Your task to perform on an android device: Open Google Maps Image 0: 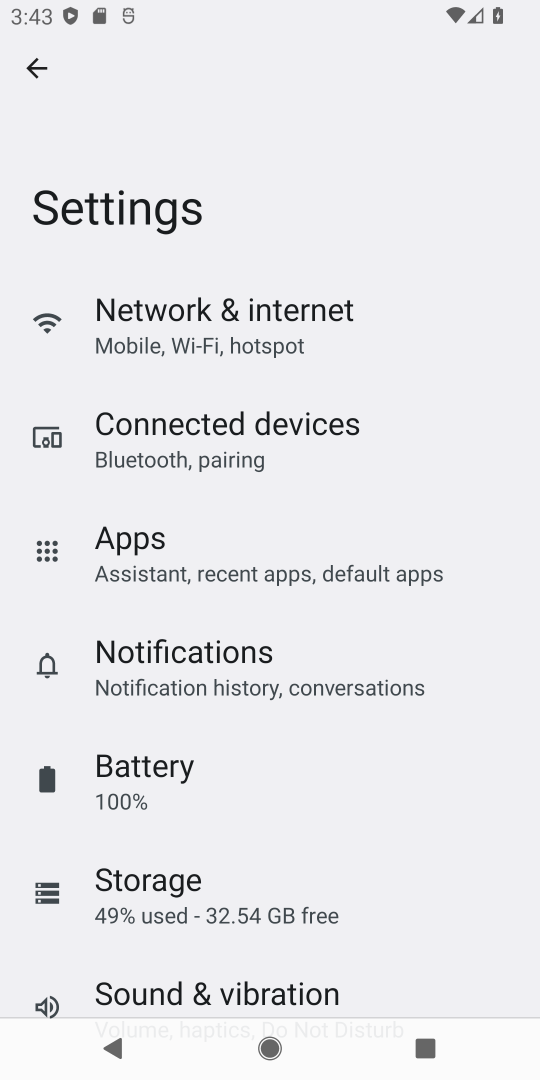
Step 0: press home button
Your task to perform on an android device: Open Google Maps Image 1: 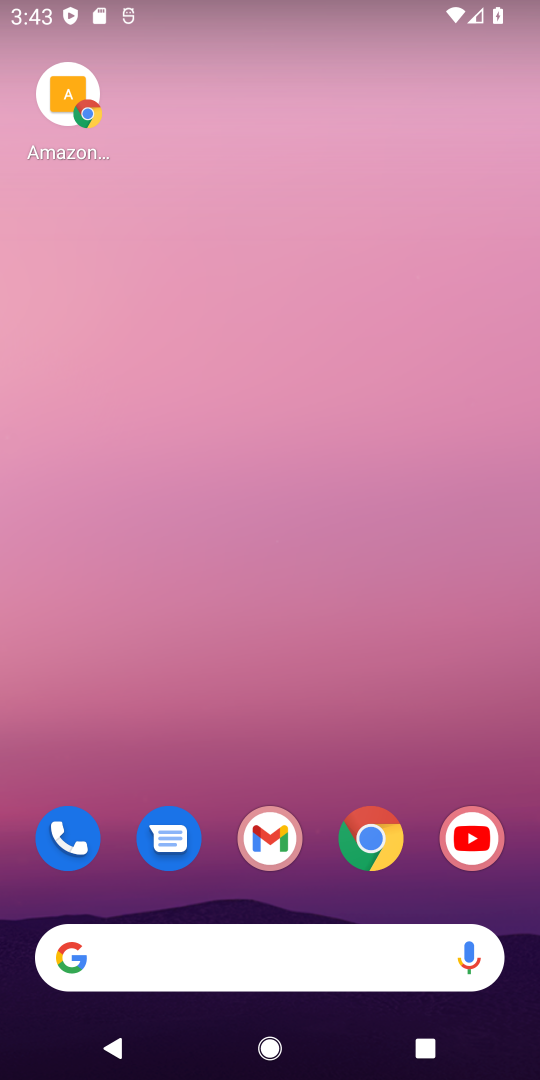
Step 1: drag from (314, 960) to (136, 51)
Your task to perform on an android device: Open Google Maps Image 2: 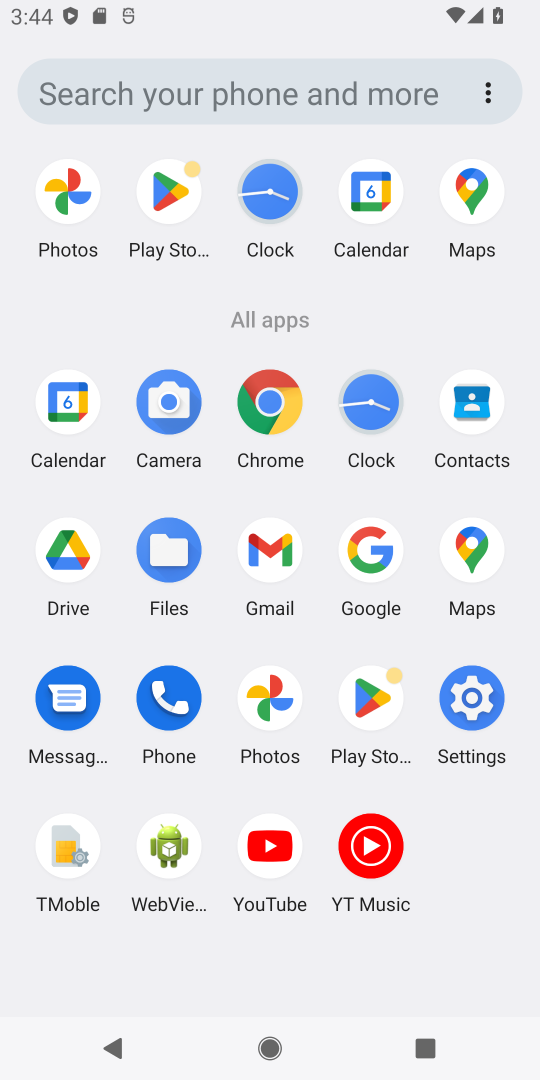
Step 2: click (461, 544)
Your task to perform on an android device: Open Google Maps Image 3: 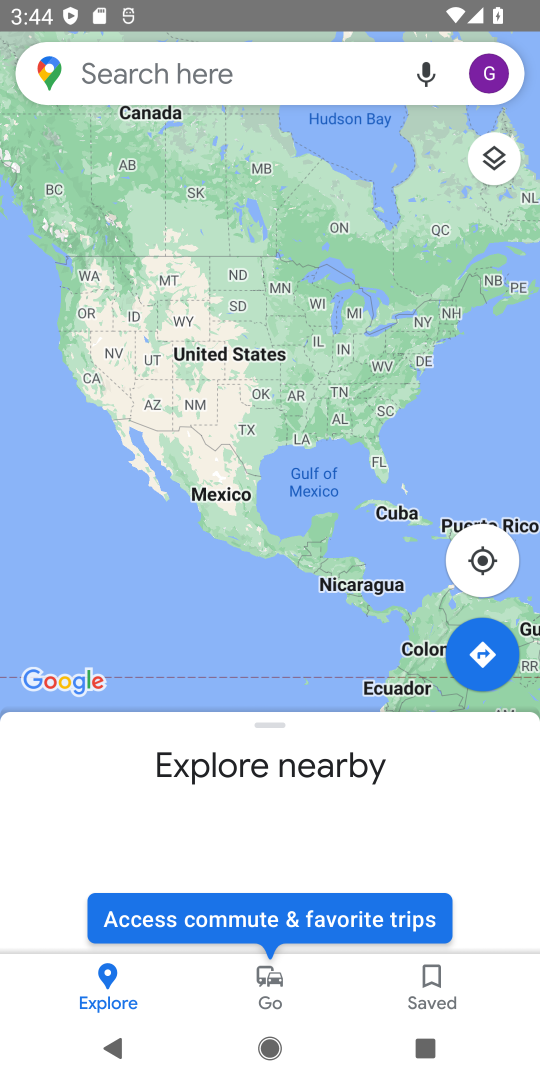
Step 3: task complete